Your task to perform on an android device: Go to location settings Image 0: 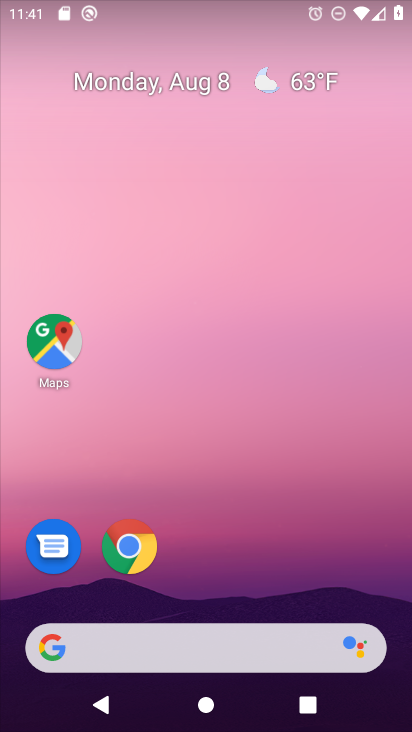
Step 0: press home button
Your task to perform on an android device: Go to location settings Image 1: 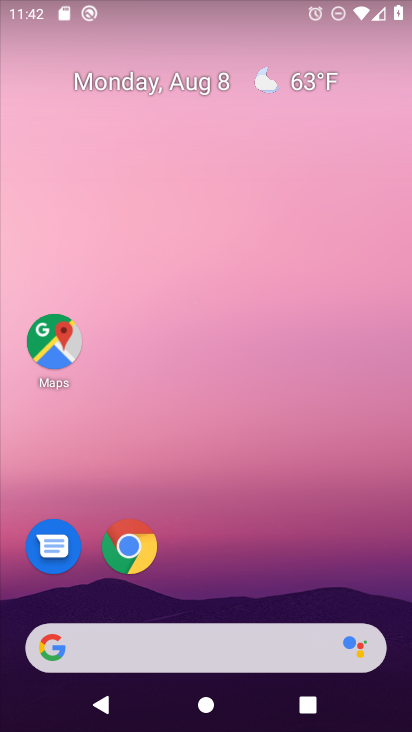
Step 1: drag from (217, 597) to (242, 51)
Your task to perform on an android device: Go to location settings Image 2: 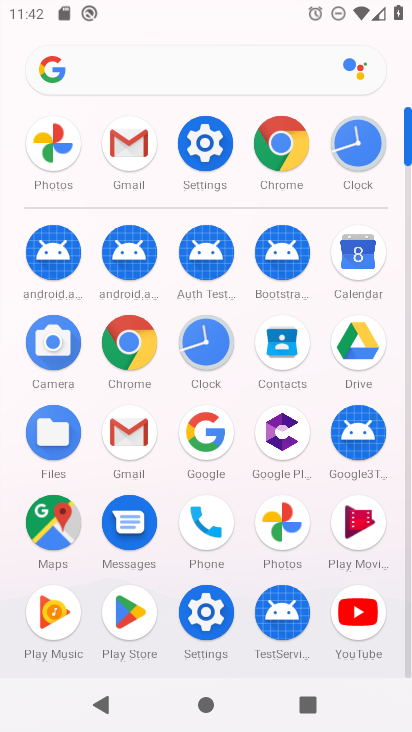
Step 2: click (201, 138)
Your task to perform on an android device: Go to location settings Image 3: 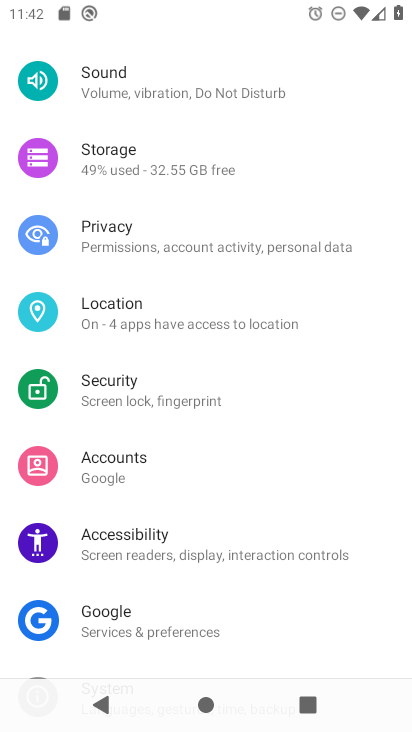
Step 3: click (153, 305)
Your task to perform on an android device: Go to location settings Image 4: 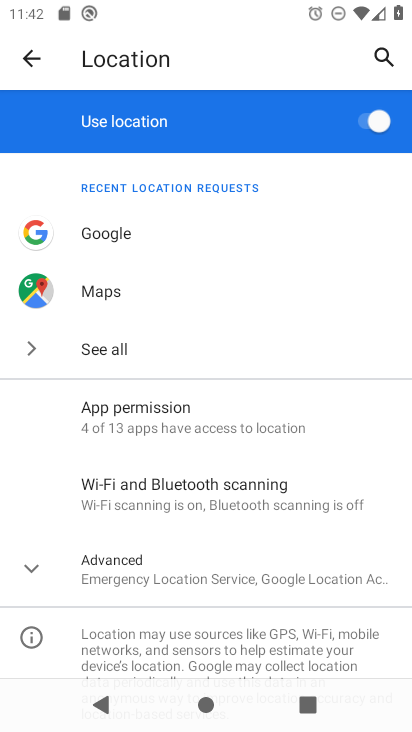
Step 4: click (25, 558)
Your task to perform on an android device: Go to location settings Image 5: 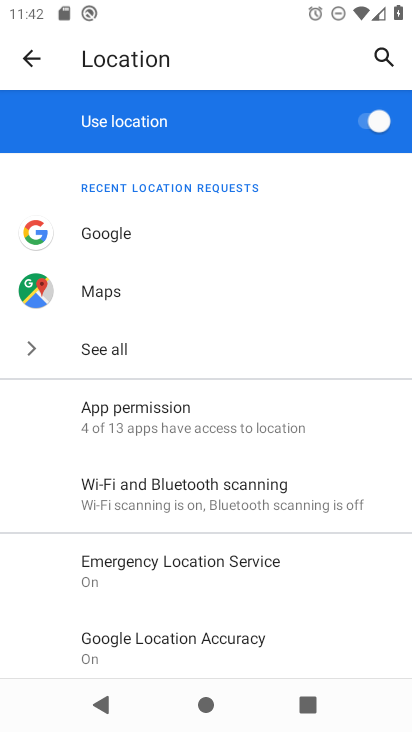
Step 5: task complete